Your task to perform on an android device: make emails show in primary in the gmail app Image 0: 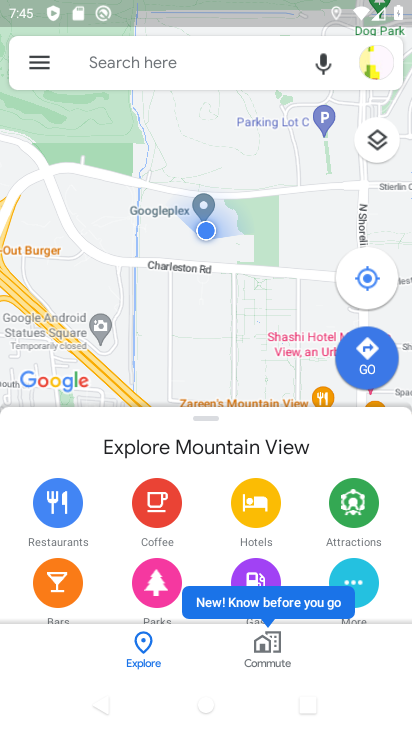
Step 0: press home button
Your task to perform on an android device: make emails show in primary in the gmail app Image 1: 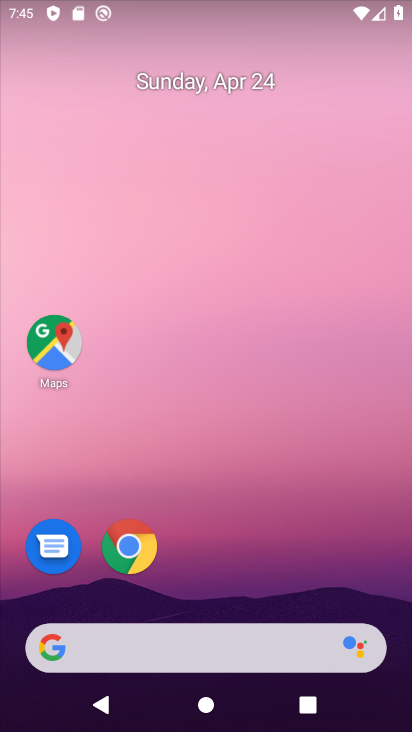
Step 1: drag from (199, 620) to (212, 54)
Your task to perform on an android device: make emails show in primary in the gmail app Image 2: 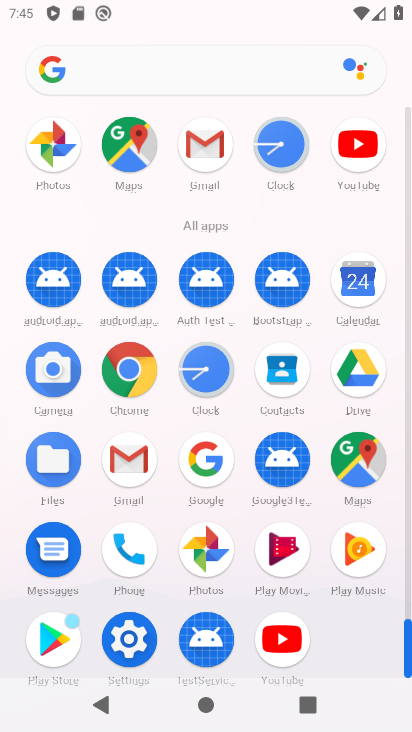
Step 2: click (135, 461)
Your task to perform on an android device: make emails show in primary in the gmail app Image 3: 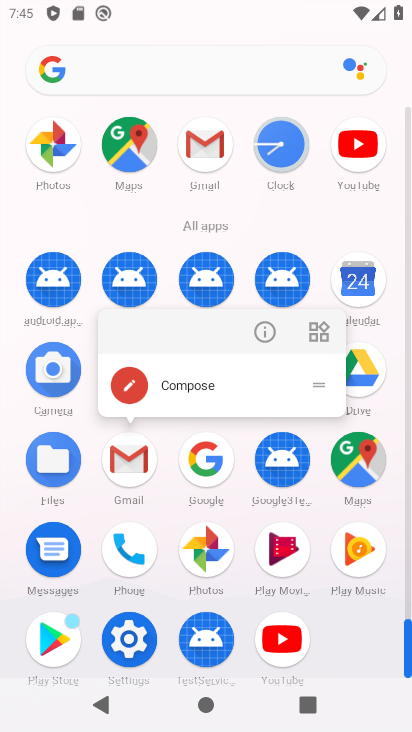
Step 3: click (264, 329)
Your task to perform on an android device: make emails show in primary in the gmail app Image 4: 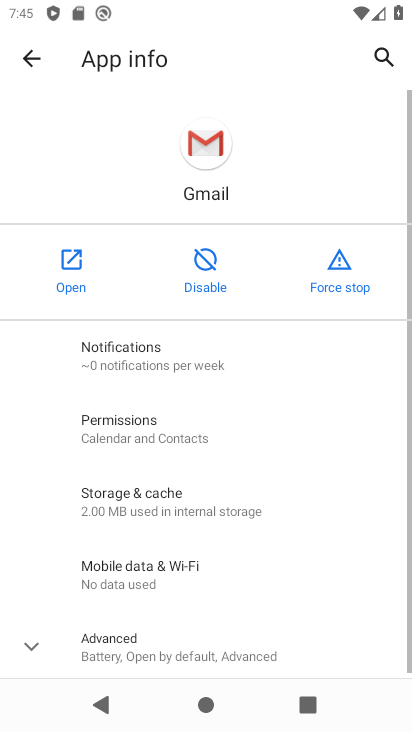
Step 4: click (68, 276)
Your task to perform on an android device: make emails show in primary in the gmail app Image 5: 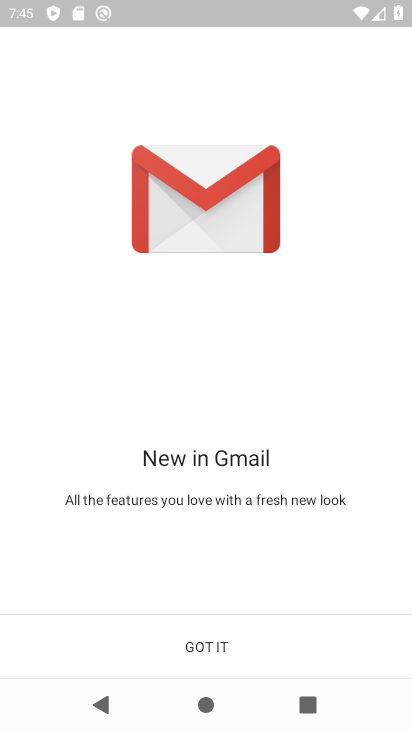
Step 5: click (210, 639)
Your task to perform on an android device: make emails show in primary in the gmail app Image 6: 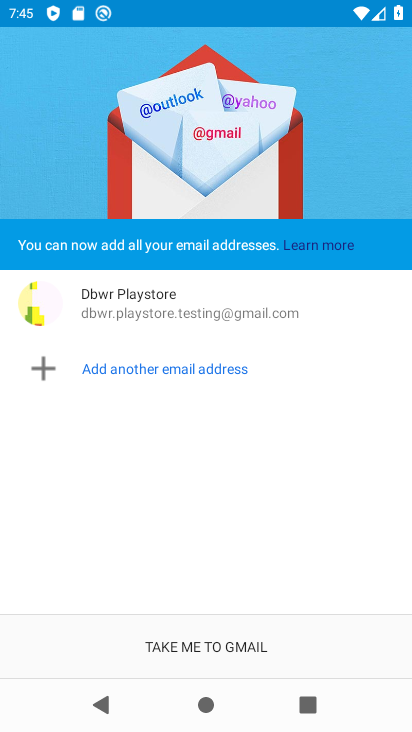
Step 6: click (209, 637)
Your task to perform on an android device: make emails show in primary in the gmail app Image 7: 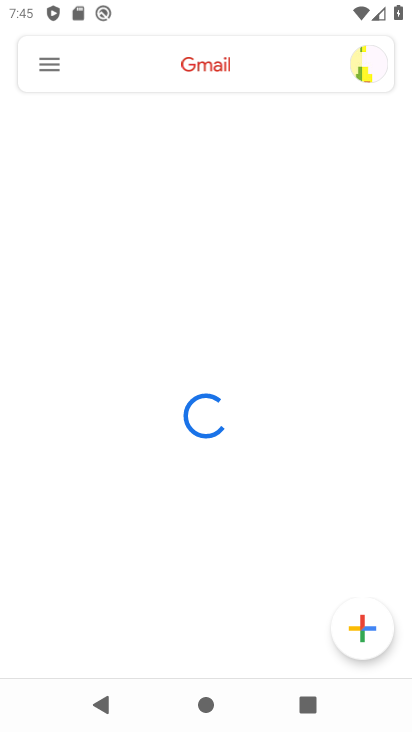
Step 7: click (40, 60)
Your task to perform on an android device: make emails show in primary in the gmail app Image 8: 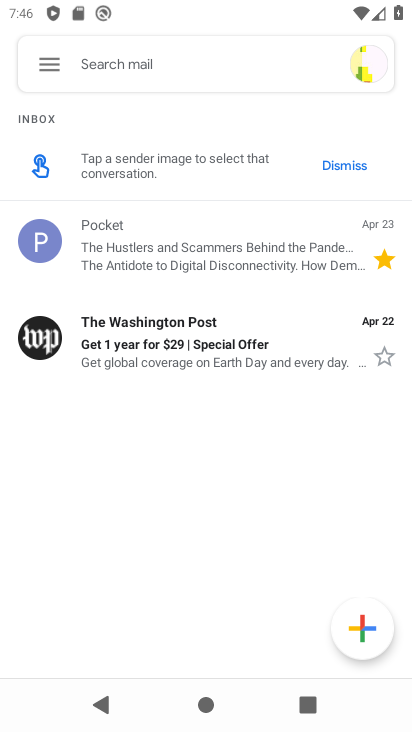
Step 8: click (50, 82)
Your task to perform on an android device: make emails show in primary in the gmail app Image 9: 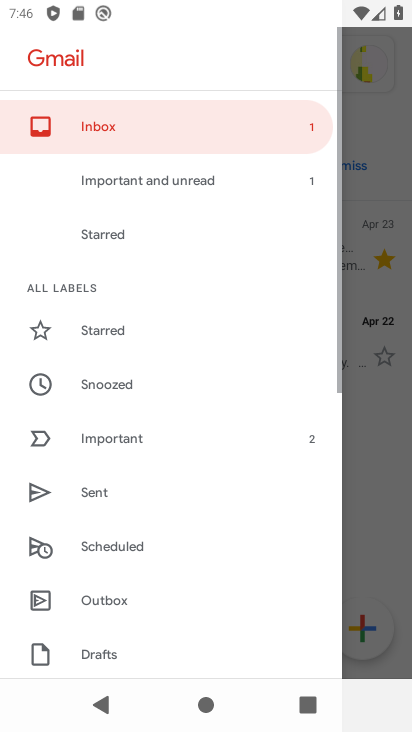
Step 9: click (170, 130)
Your task to perform on an android device: make emails show in primary in the gmail app Image 10: 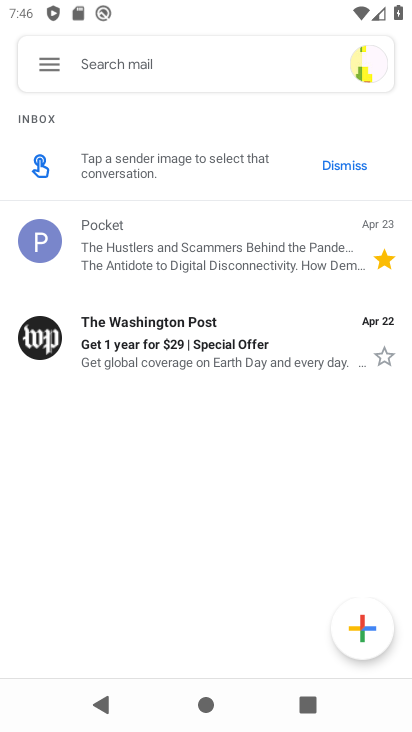
Step 10: task complete